Your task to perform on an android device: Open Yahoo.com Image 0: 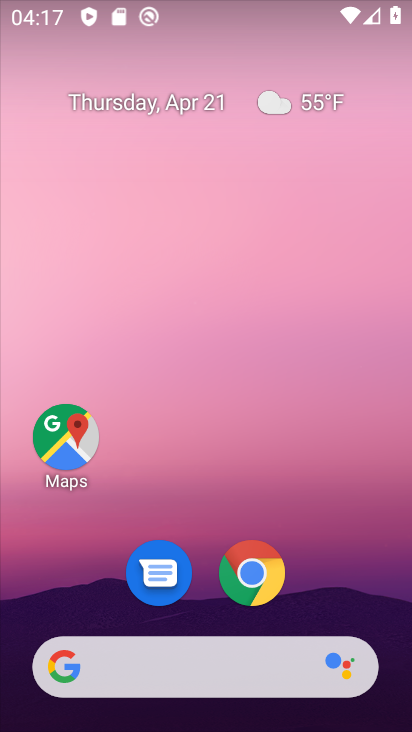
Step 0: click (274, 576)
Your task to perform on an android device: Open Yahoo.com Image 1: 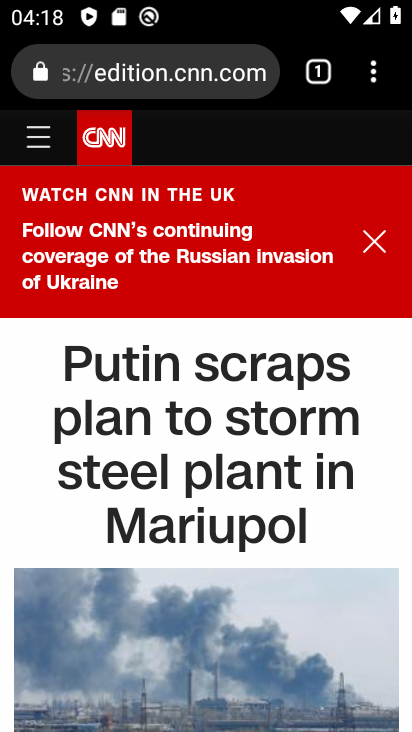
Step 1: click (107, 60)
Your task to perform on an android device: Open Yahoo.com Image 2: 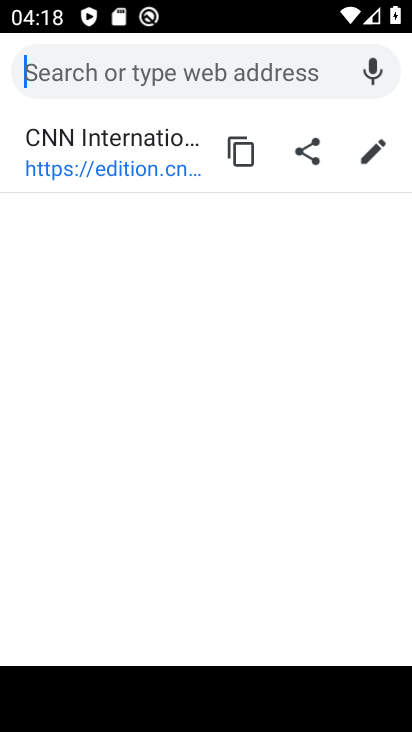
Step 2: type "yahoo.com"
Your task to perform on an android device: Open Yahoo.com Image 3: 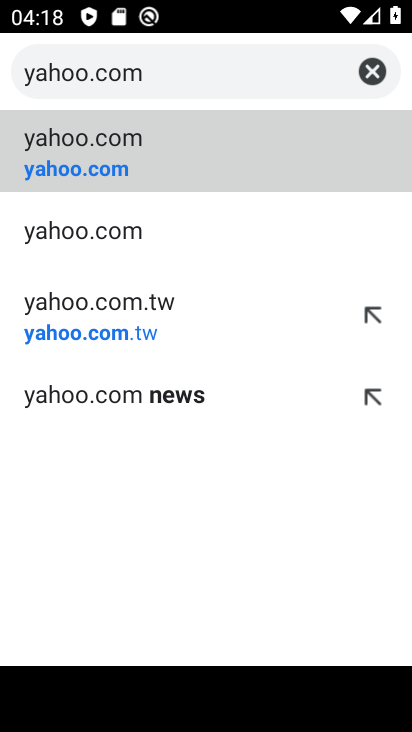
Step 3: click (63, 171)
Your task to perform on an android device: Open Yahoo.com Image 4: 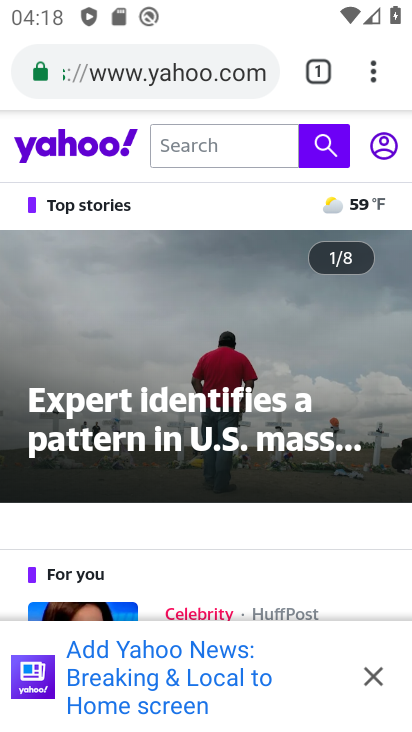
Step 4: task complete